Your task to perform on an android device: move a message to another label in the gmail app Image 0: 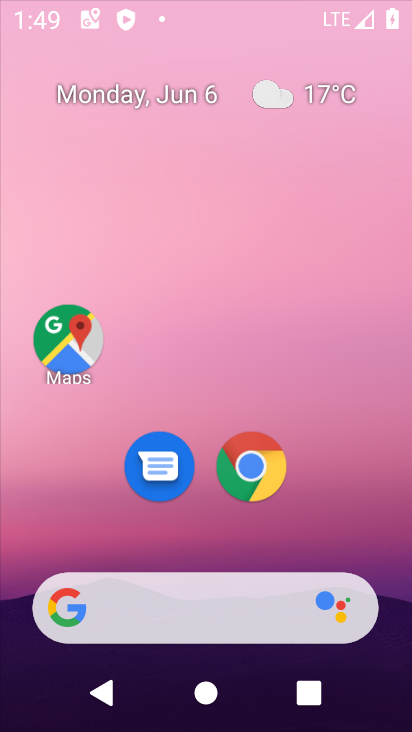
Step 0: press home button
Your task to perform on an android device: move a message to another label in the gmail app Image 1: 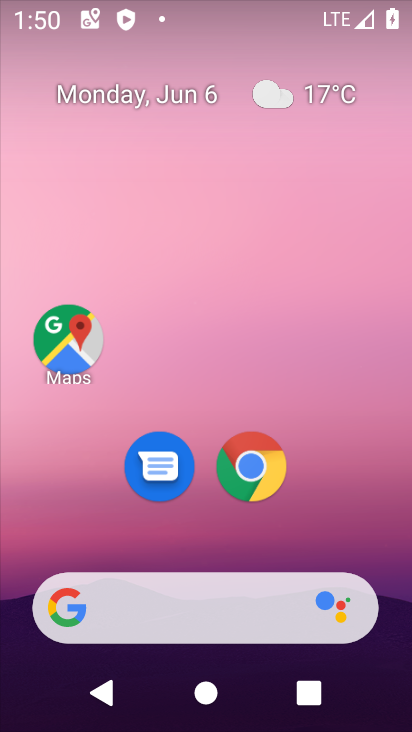
Step 1: drag from (202, 552) to (218, 108)
Your task to perform on an android device: move a message to another label in the gmail app Image 2: 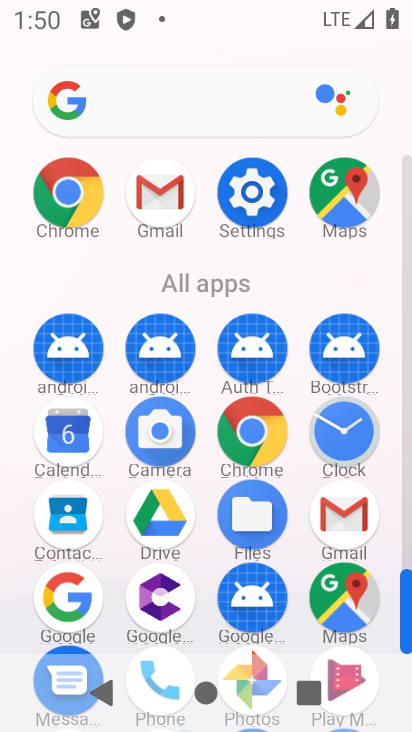
Step 2: click (150, 207)
Your task to perform on an android device: move a message to another label in the gmail app Image 3: 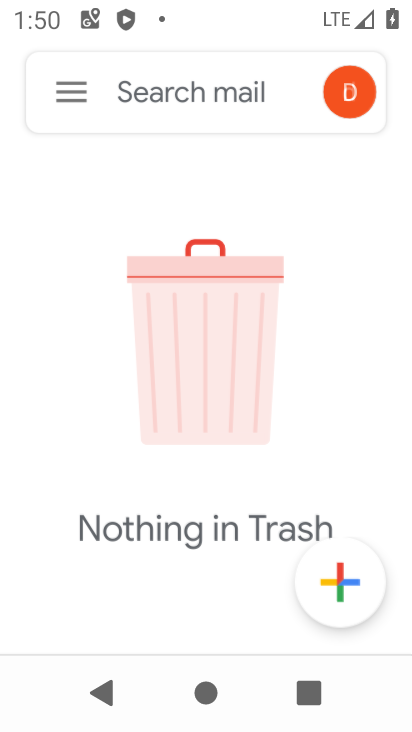
Step 3: click (71, 105)
Your task to perform on an android device: move a message to another label in the gmail app Image 4: 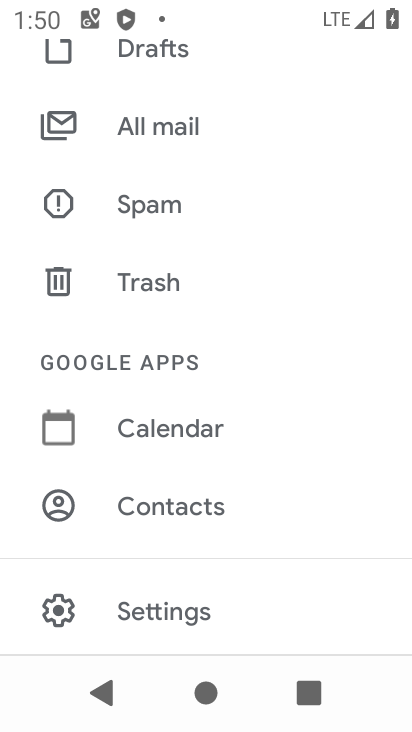
Step 4: click (154, 122)
Your task to perform on an android device: move a message to another label in the gmail app Image 5: 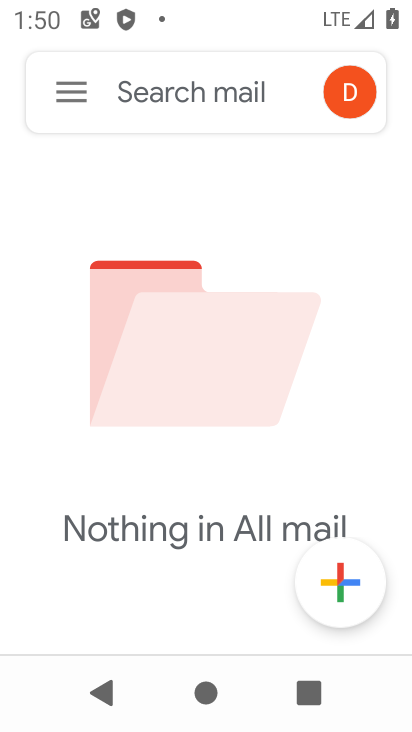
Step 5: task complete